Your task to perform on an android device: turn off notifications in google photos Image 0: 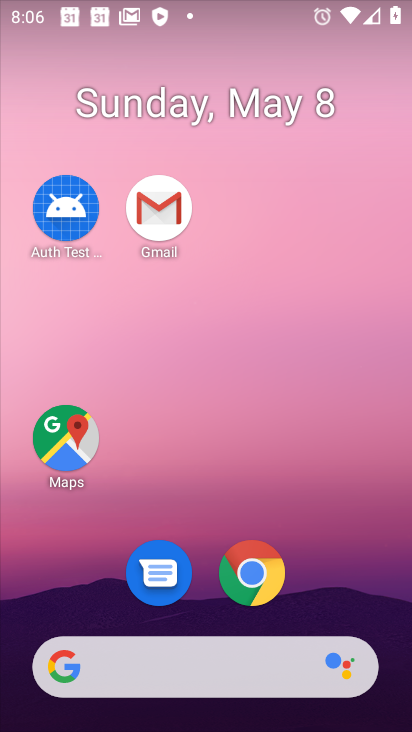
Step 0: drag from (324, 593) to (201, 80)
Your task to perform on an android device: turn off notifications in google photos Image 1: 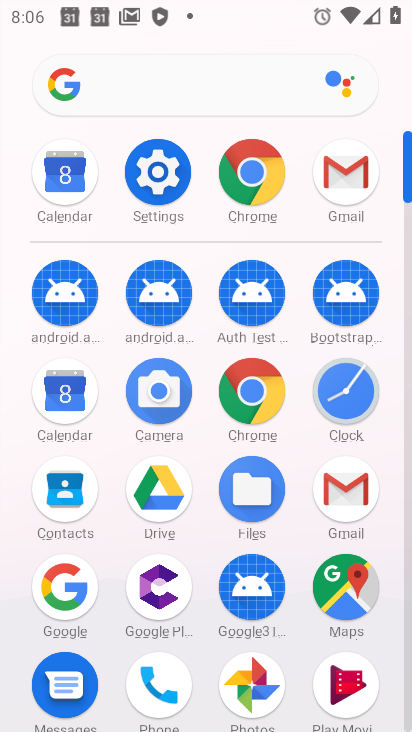
Step 1: click (237, 690)
Your task to perform on an android device: turn off notifications in google photos Image 2: 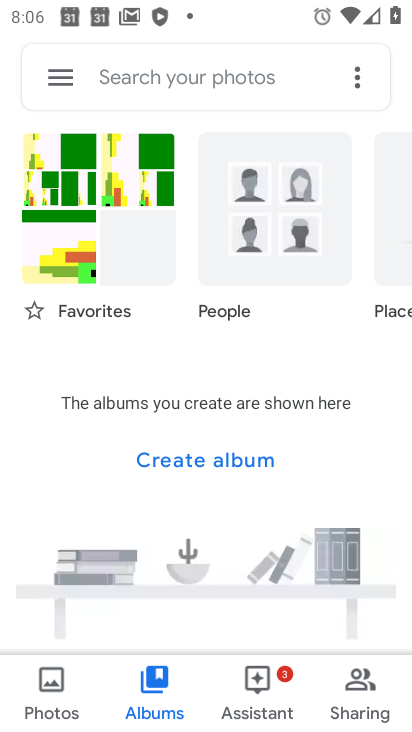
Step 2: click (63, 74)
Your task to perform on an android device: turn off notifications in google photos Image 3: 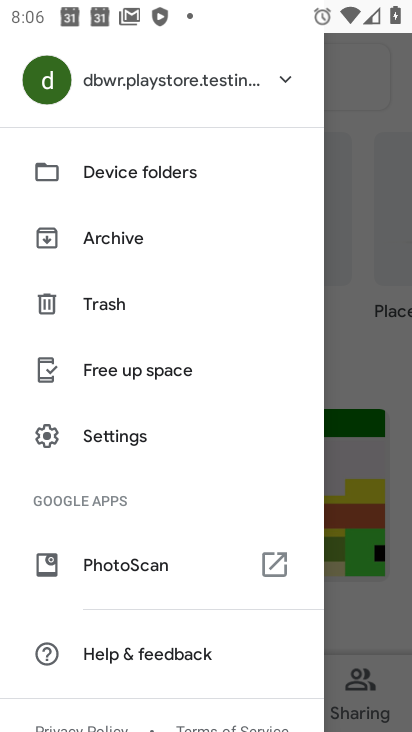
Step 3: click (97, 431)
Your task to perform on an android device: turn off notifications in google photos Image 4: 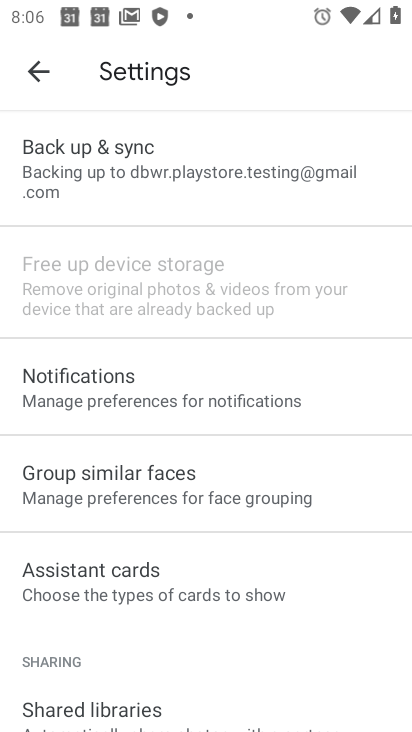
Step 4: click (115, 401)
Your task to perform on an android device: turn off notifications in google photos Image 5: 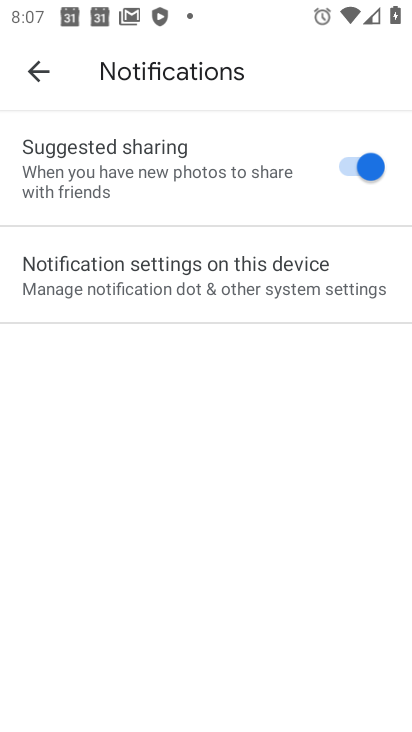
Step 5: click (366, 173)
Your task to perform on an android device: turn off notifications in google photos Image 6: 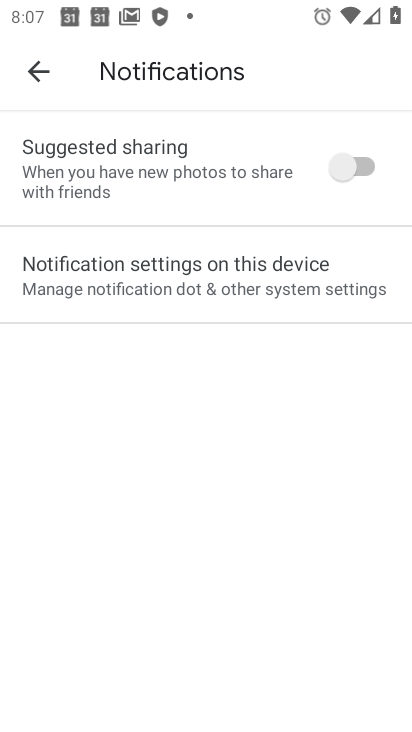
Step 6: task complete